Your task to perform on an android device: set the stopwatch Image 0: 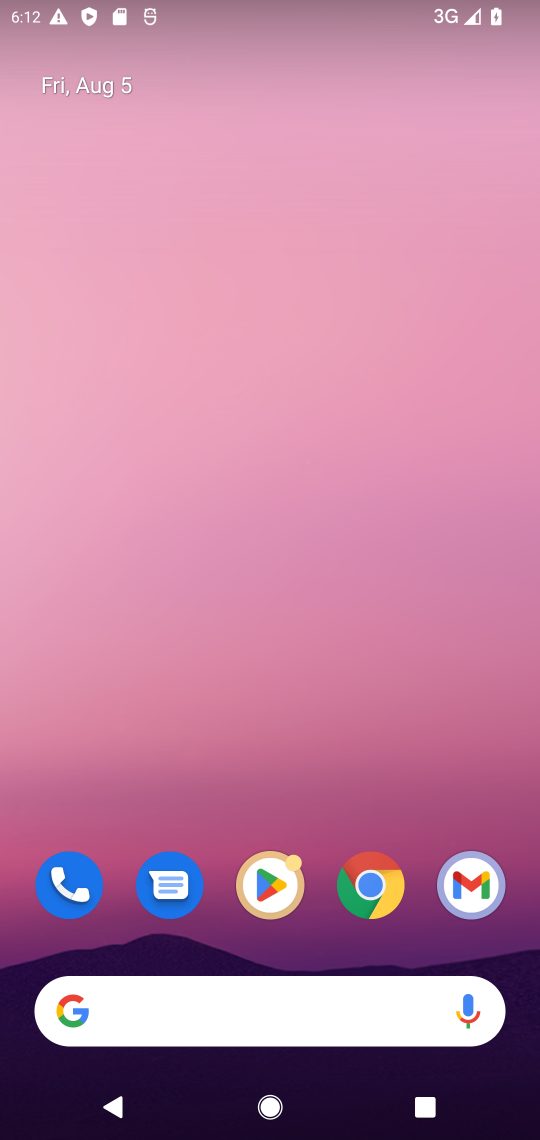
Step 0: drag from (240, 902) to (248, 201)
Your task to perform on an android device: set the stopwatch Image 1: 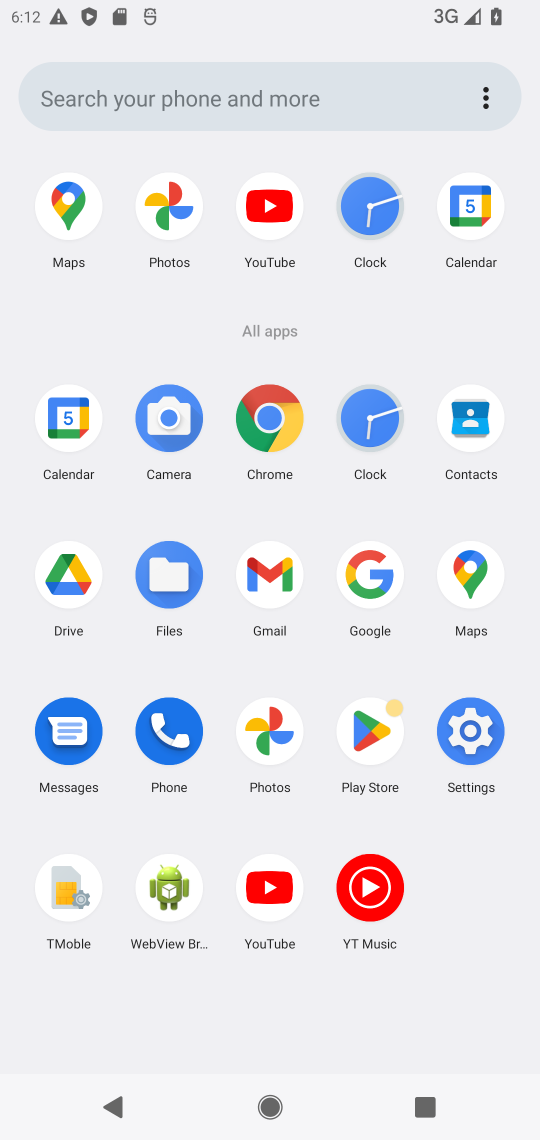
Step 1: click (371, 435)
Your task to perform on an android device: set the stopwatch Image 2: 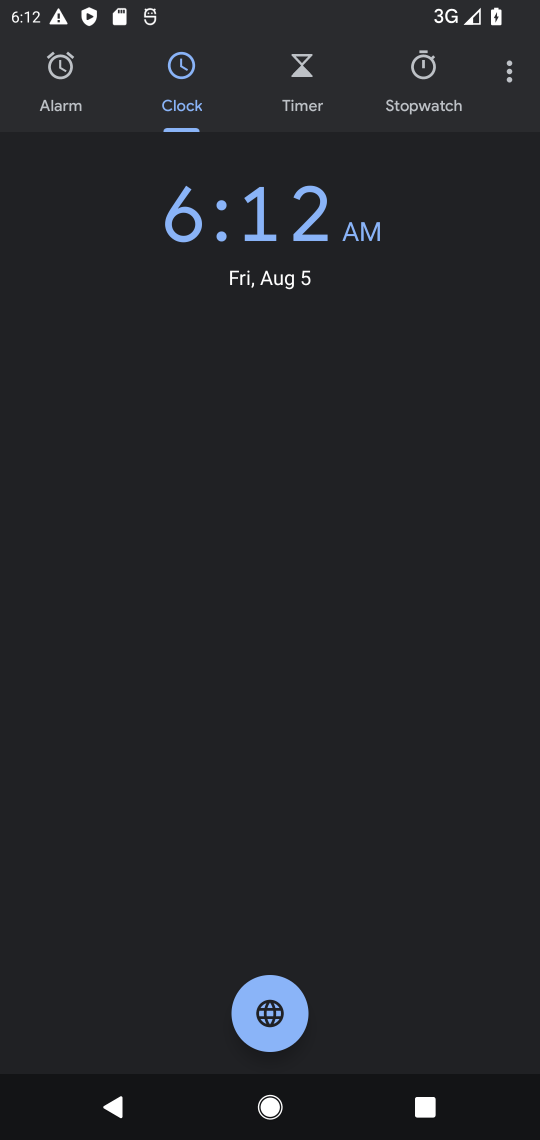
Step 2: click (421, 101)
Your task to perform on an android device: set the stopwatch Image 3: 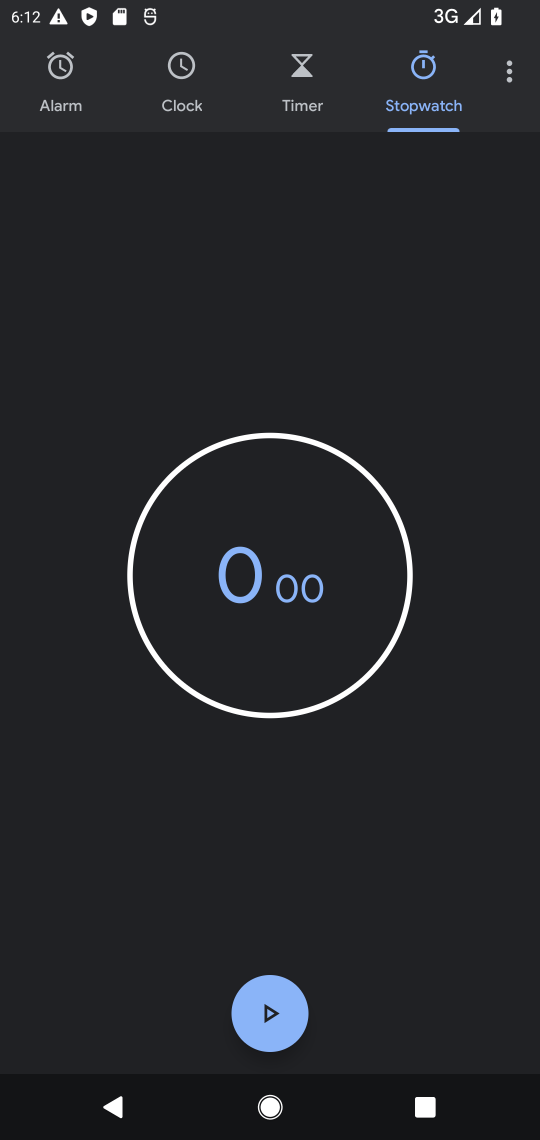
Step 3: click (284, 1047)
Your task to perform on an android device: set the stopwatch Image 4: 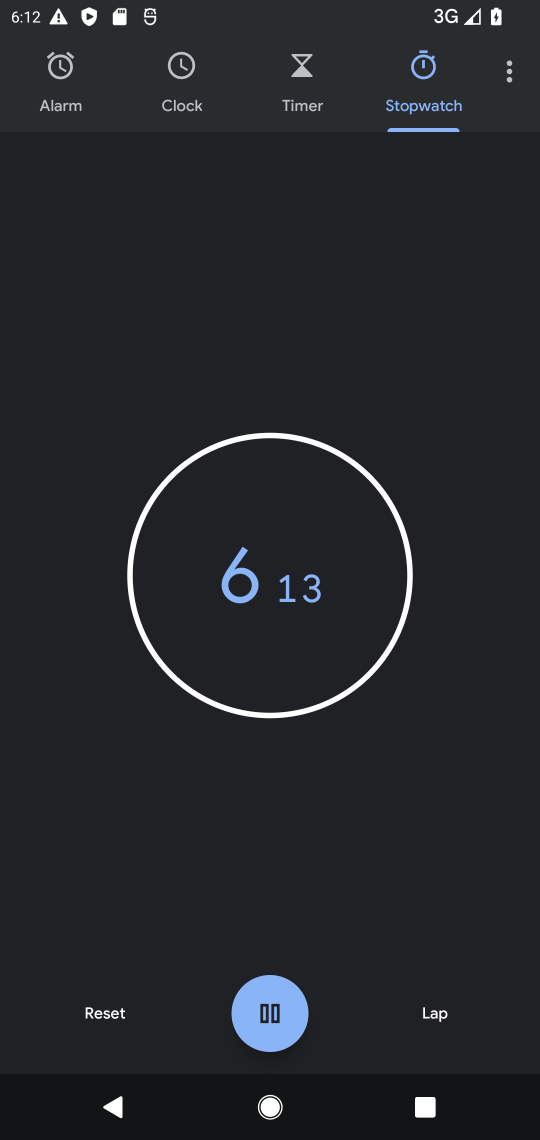
Step 4: task complete